Your task to perform on an android device: clear history in the chrome app Image 0: 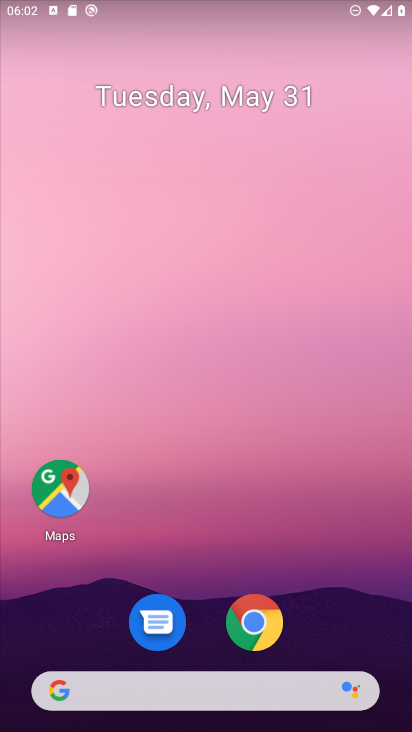
Step 0: drag from (259, 721) to (321, 17)
Your task to perform on an android device: clear history in the chrome app Image 1: 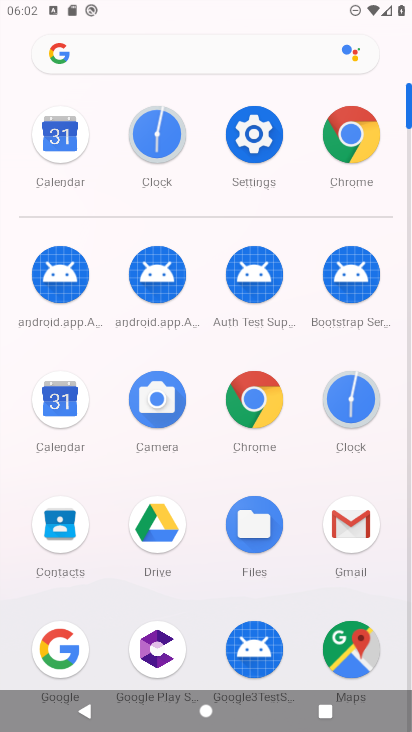
Step 1: click (253, 376)
Your task to perform on an android device: clear history in the chrome app Image 2: 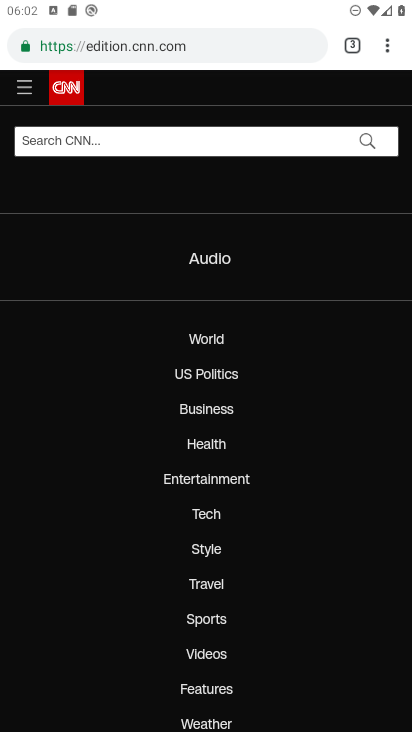
Step 2: task complete